Your task to perform on an android device: change the clock display to analog Image 0: 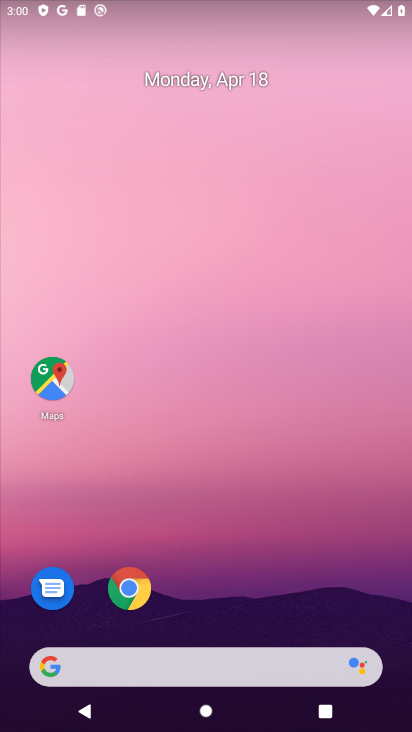
Step 0: drag from (345, 621) to (356, 0)
Your task to perform on an android device: change the clock display to analog Image 1: 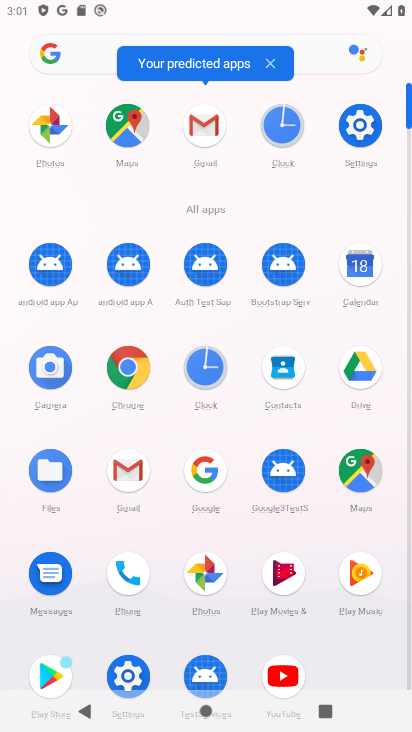
Step 1: click (204, 361)
Your task to perform on an android device: change the clock display to analog Image 2: 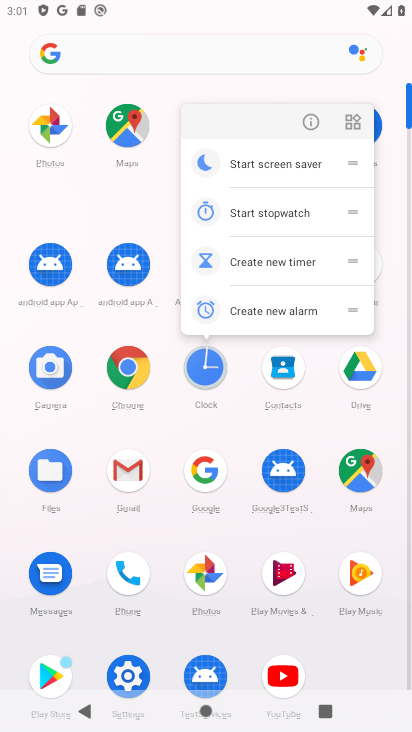
Step 2: click (209, 370)
Your task to perform on an android device: change the clock display to analog Image 3: 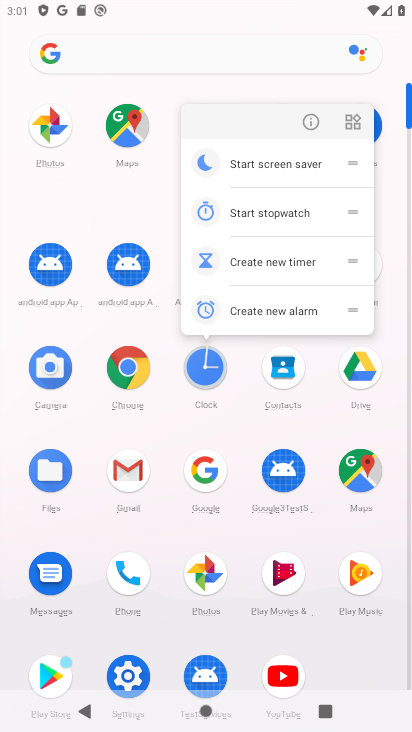
Step 3: click (207, 371)
Your task to perform on an android device: change the clock display to analog Image 4: 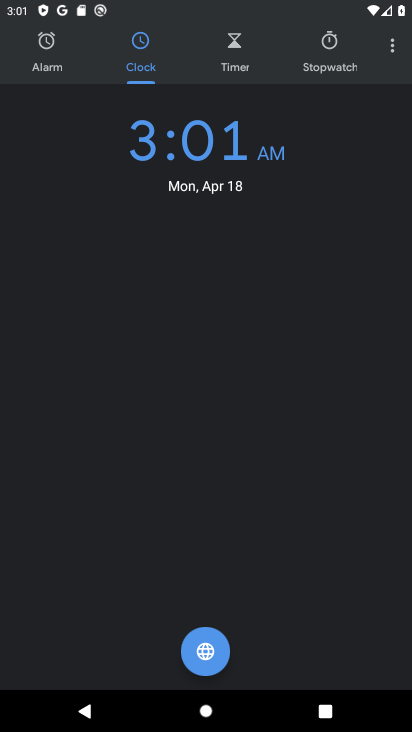
Step 4: click (401, 50)
Your task to perform on an android device: change the clock display to analog Image 5: 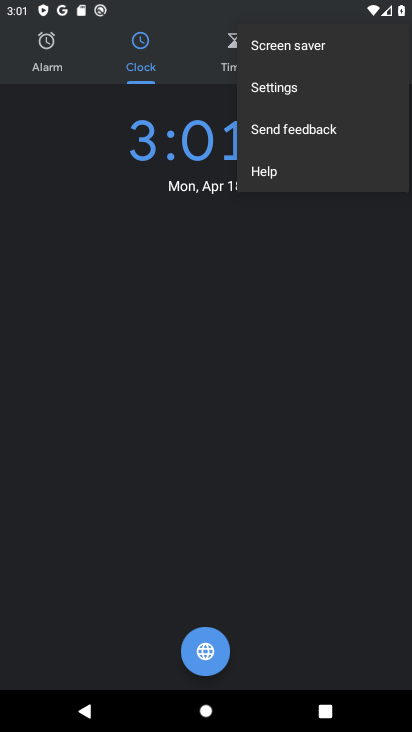
Step 5: click (292, 83)
Your task to perform on an android device: change the clock display to analog Image 6: 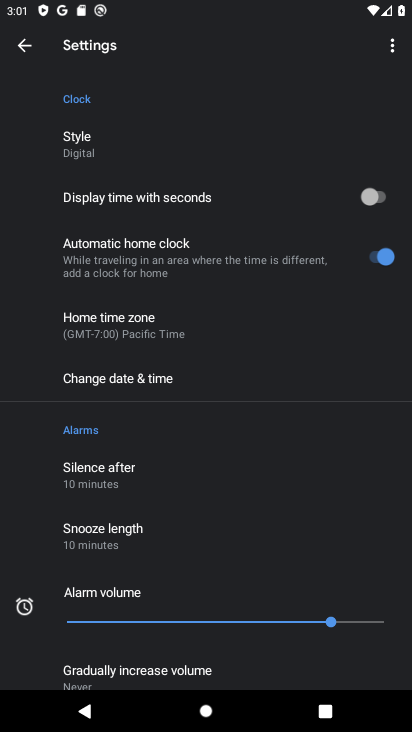
Step 6: click (124, 141)
Your task to perform on an android device: change the clock display to analog Image 7: 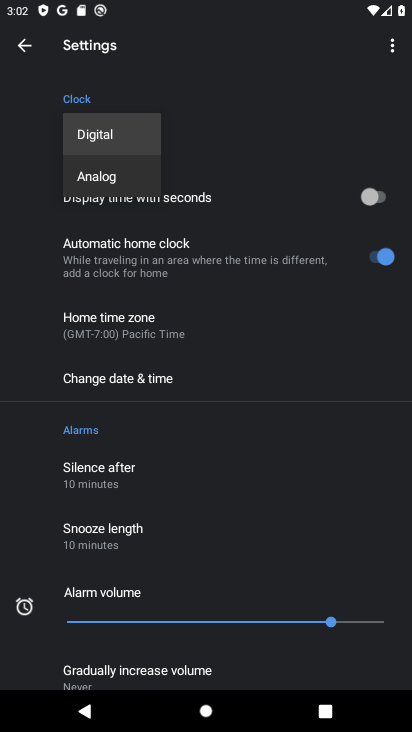
Step 7: click (135, 172)
Your task to perform on an android device: change the clock display to analog Image 8: 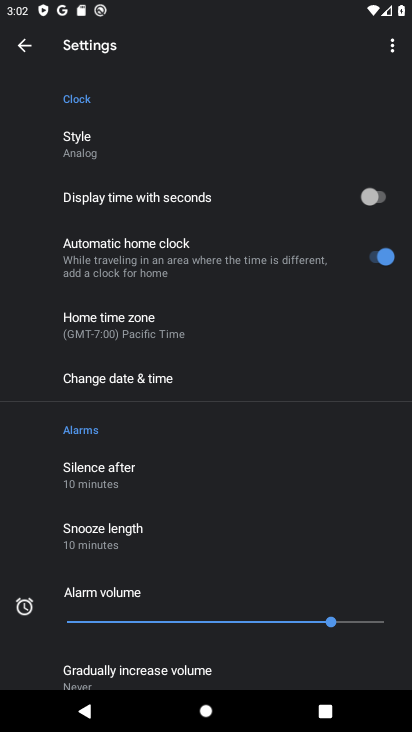
Step 8: task complete